Your task to perform on an android device: search for starred emails in the gmail app Image 0: 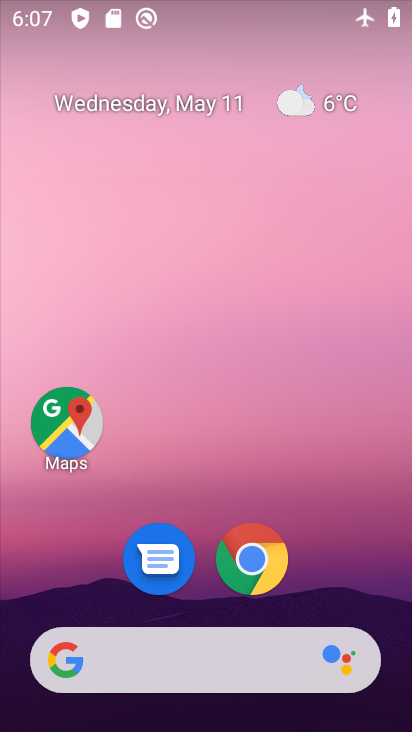
Step 0: drag from (322, 600) to (320, 25)
Your task to perform on an android device: search for starred emails in the gmail app Image 1: 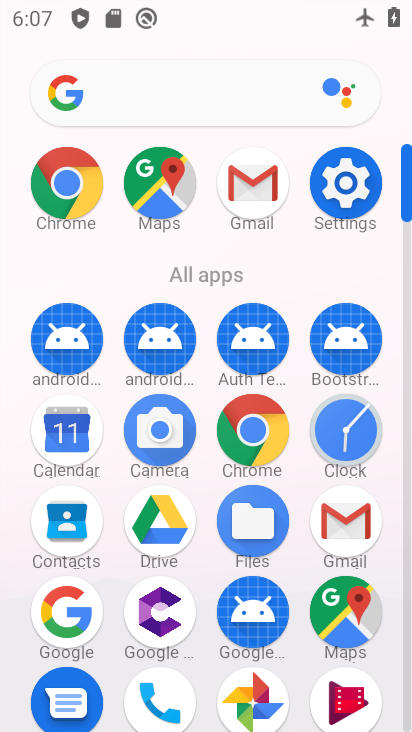
Step 1: click (269, 199)
Your task to perform on an android device: search for starred emails in the gmail app Image 2: 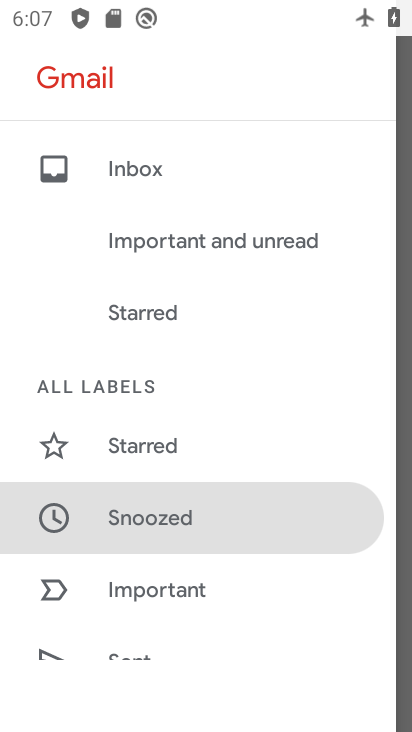
Step 2: click (56, 336)
Your task to perform on an android device: search for starred emails in the gmail app Image 3: 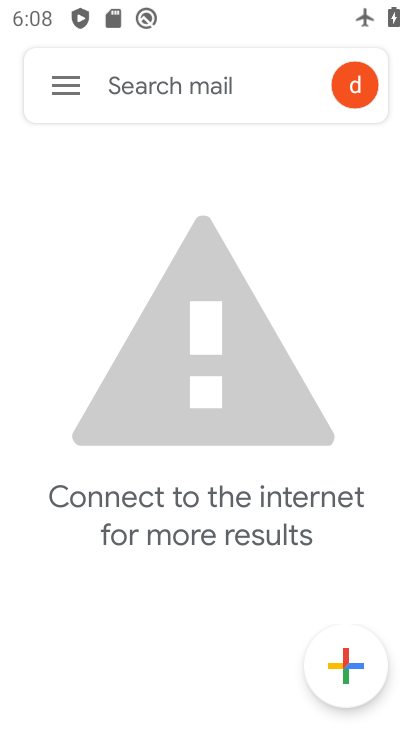
Step 3: task complete